Your task to perform on an android device: Open settings on Google Maps Image 0: 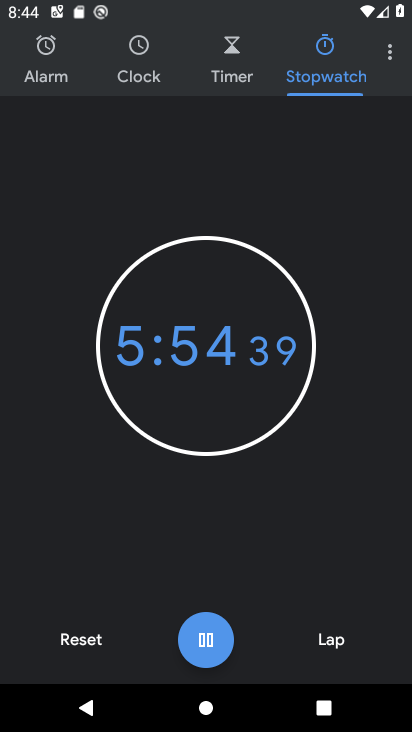
Step 0: press home button
Your task to perform on an android device: Open settings on Google Maps Image 1: 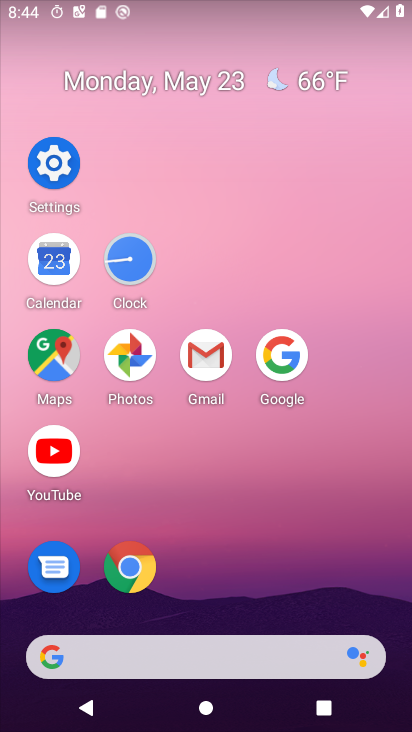
Step 1: click (66, 358)
Your task to perform on an android device: Open settings on Google Maps Image 2: 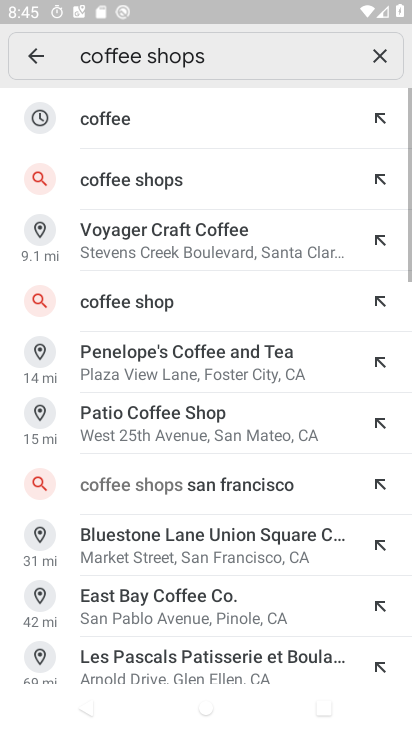
Step 2: click (48, 68)
Your task to perform on an android device: Open settings on Google Maps Image 3: 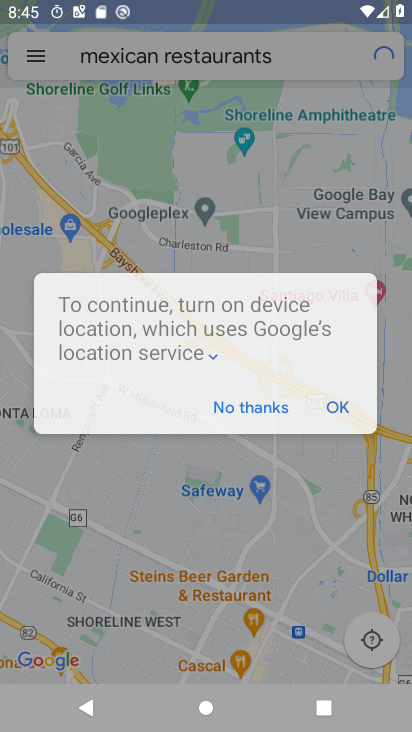
Step 3: click (48, 68)
Your task to perform on an android device: Open settings on Google Maps Image 4: 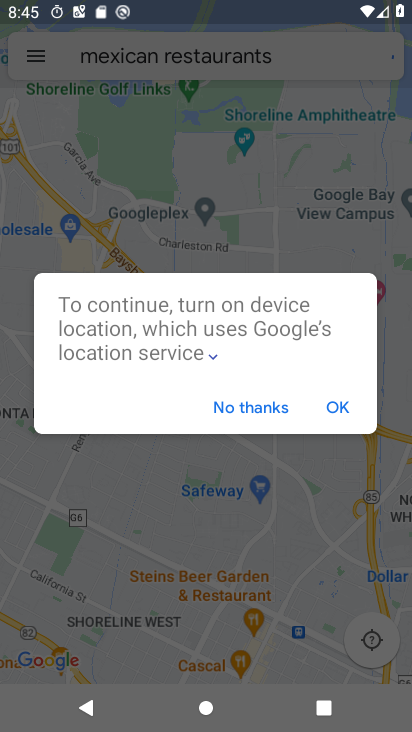
Step 4: click (353, 399)
Your task to perform on an android device: Open settings on Google Maps Image 5: 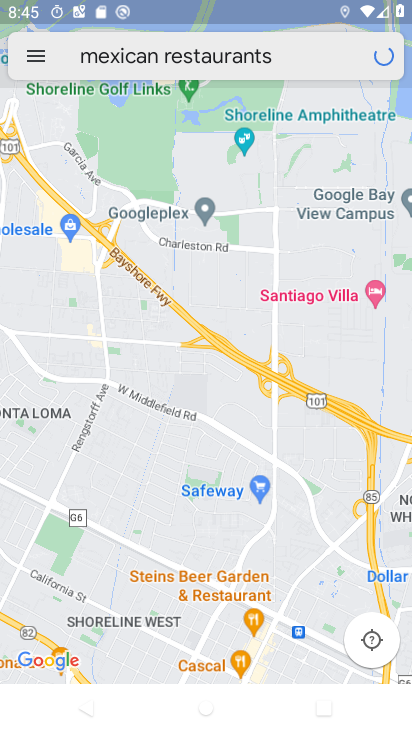
Step 5: click (40, 64)
Your task to perform on an android device: Open settings on Google Maps Image 6: 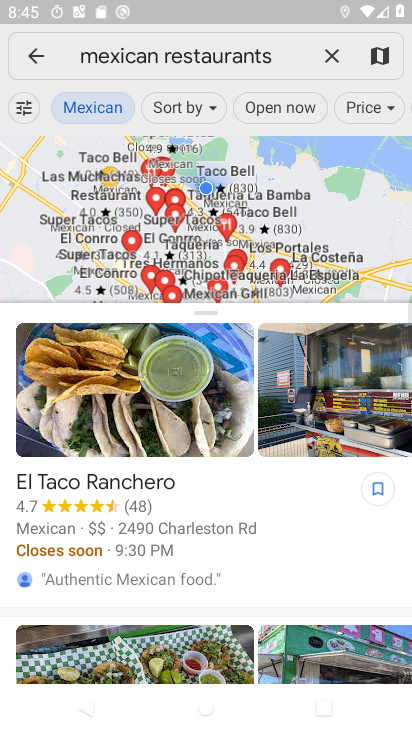
Step 6: click (38, 71)
Your task to perform on an android device: Open settings on Google Maps Image 7: 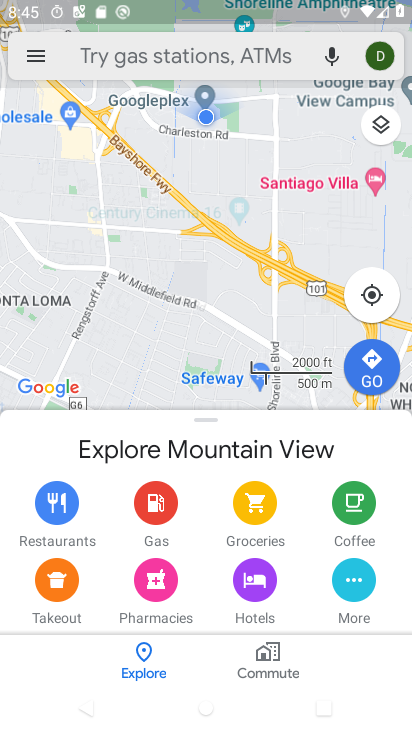
Step 7: click (21, 54)
Your task to perform on an android device: Open settings on Google Maps Image 8: 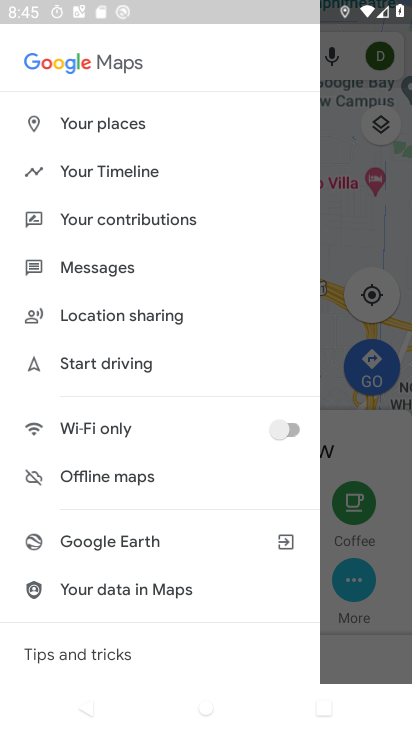
Step 8: drag from (131, 514) to (124, 107)
Your task to perform on an android device: Open settings on Google Maps Image 9: 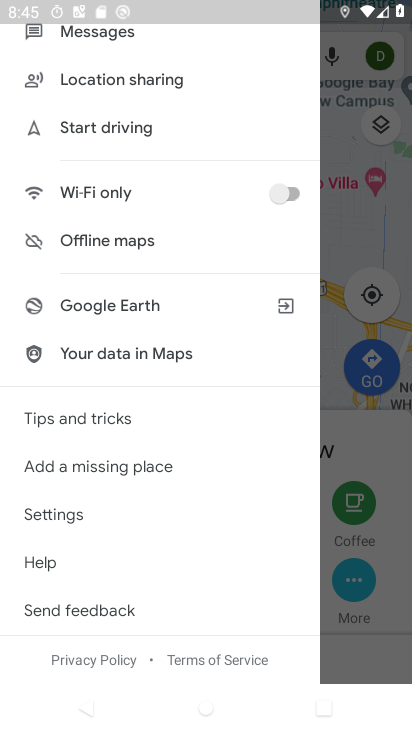
Step 9: click (85, 513)
Your task to perform on an android device: Open settings on Google Maps Image 10: 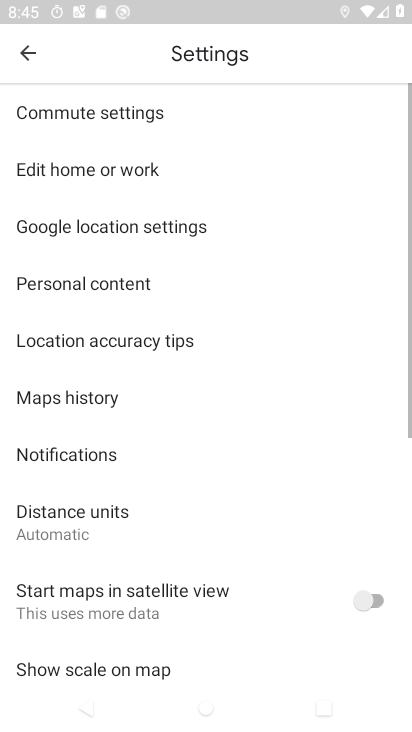
Step 10: task complete